Your task to perform on an android device: Clear the cart on ebay.com. Image 0: 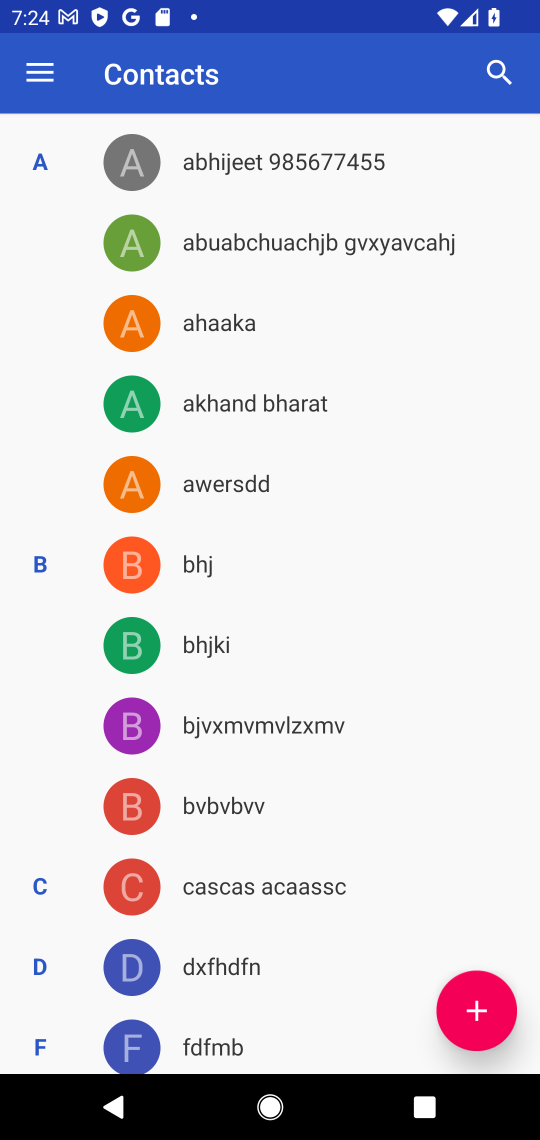
Step 0: press home button
Your task to perform on an android device: Clear the cart on ebay.com. Image 1: 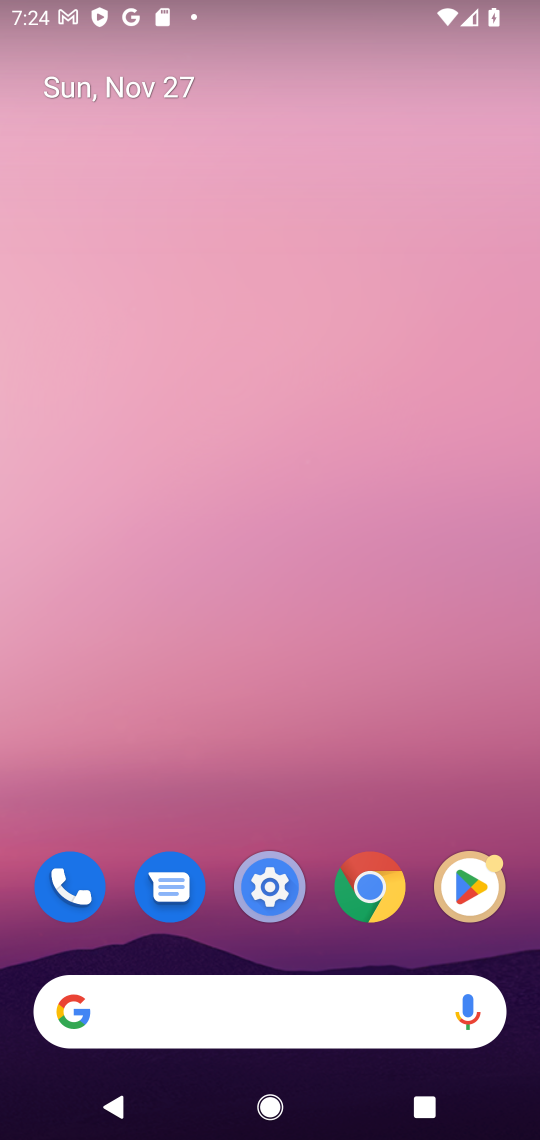
Step 1: click (308, 996)
Your task to perform on an android device: Clear the cart on ebay.com. Image 2: 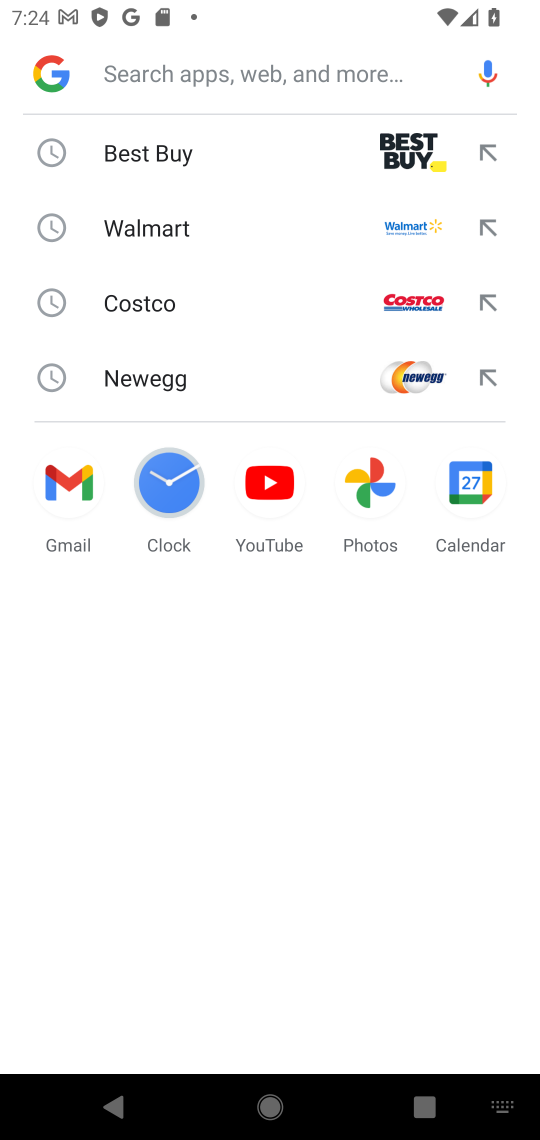
Step 2: type "ebay.com"
Your task to perform on an android device: Clear the cart on ebay.com. Image 3: 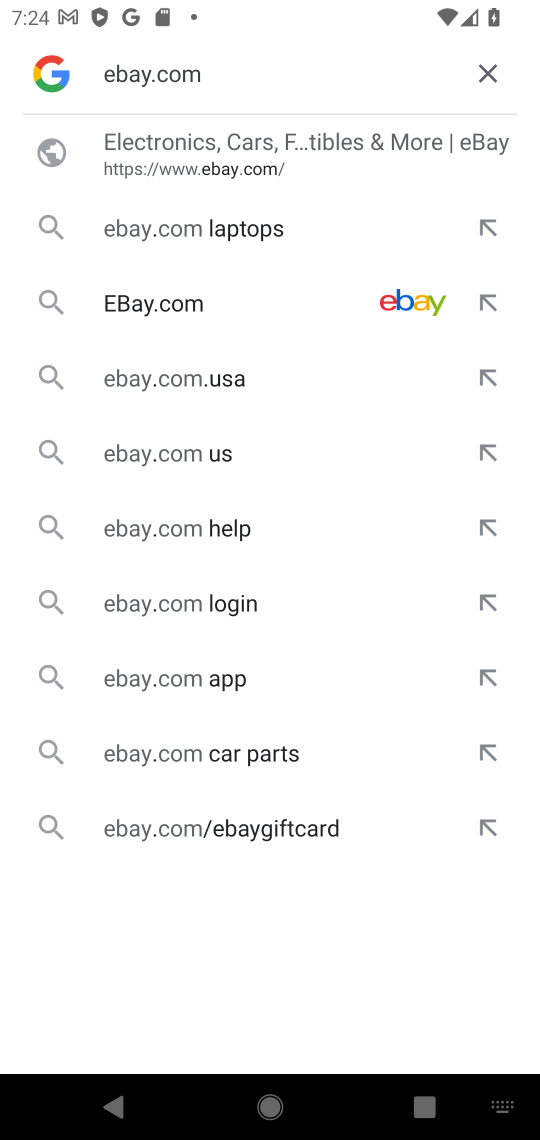
Step 3: click (246, 184)
Your task to perform on an android device: Clear the cart on ebay.com. Image 4: 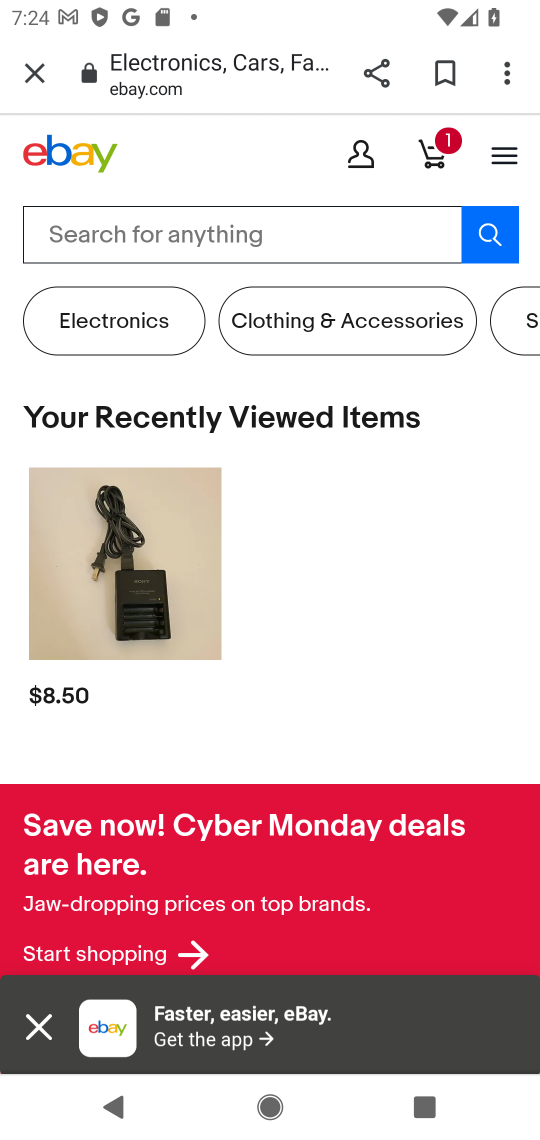
Step 4: click (246, 217)
Your task to perform on an android device: Clear the cart on ebay.com. Image 5: 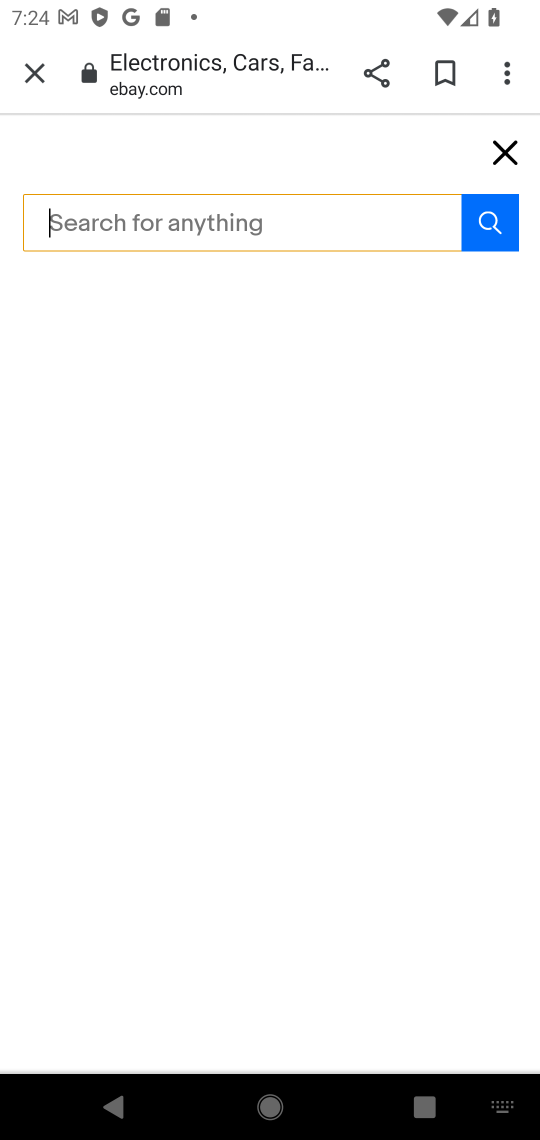
Step 5: click (502, 157)
Your task to perform on an android device: Clear the cart on ebay.com. Image 6: 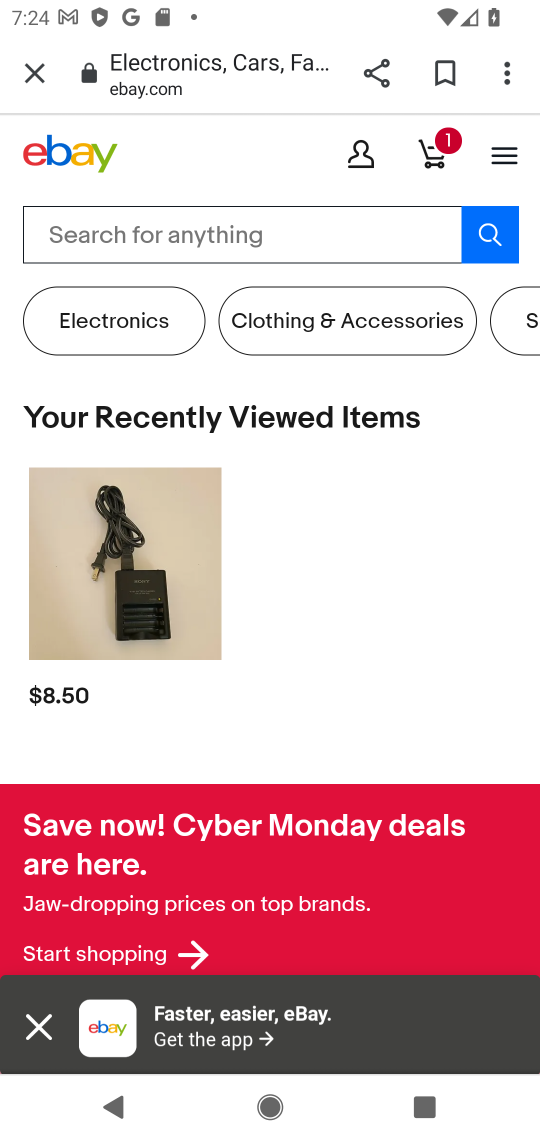
Step 6: click (430, 147)
Your task to perform on an android device: Clear the cart on ebay.com. Image 7: 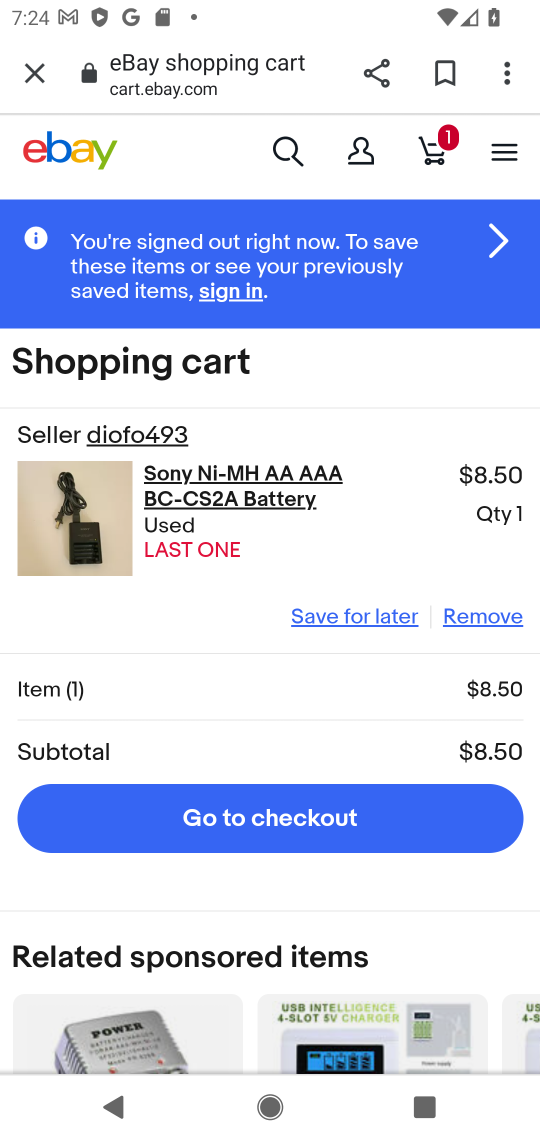
Step 7: click (450, 618)
Your task to perform on an android device: Clear the cart on ebay.com. Image 8: 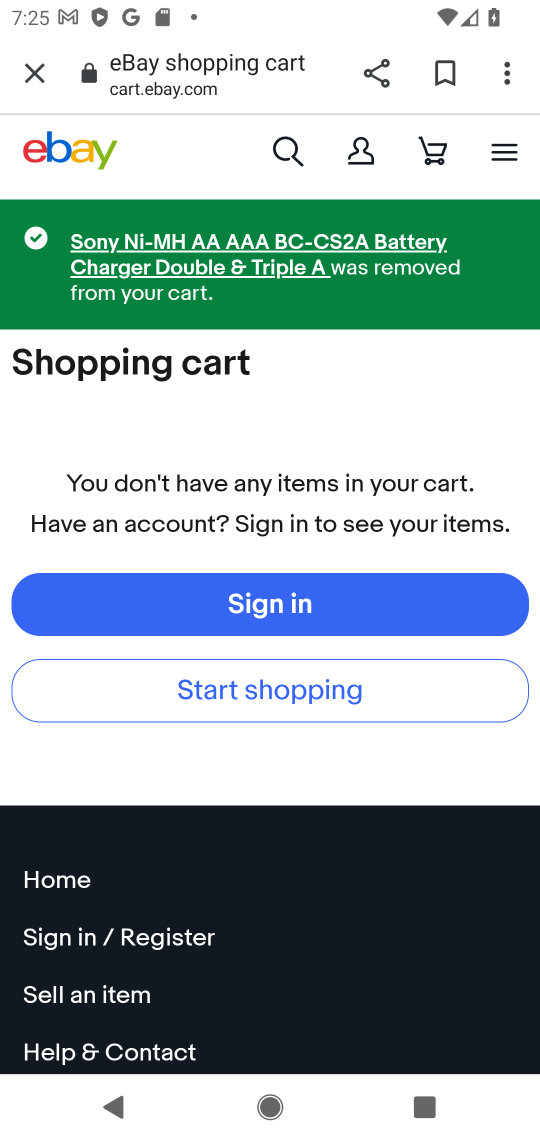
Step 8: task complete